Your task to perform on an android device: Search for sushi restaurants on Maps Image 0: 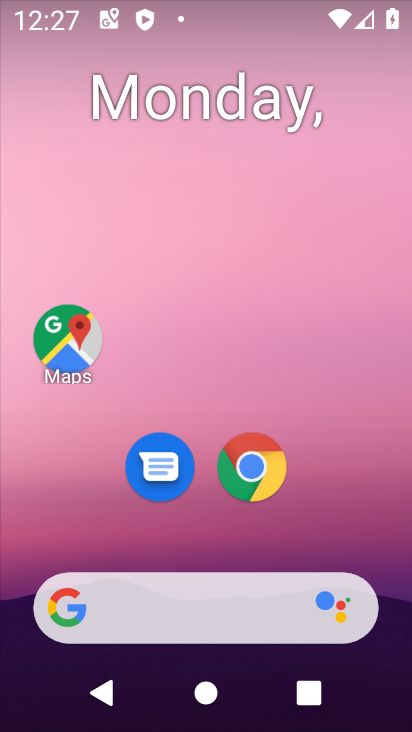
Step 0: click (65, 338)
Your task to perform on an android device: Search for sushi restaurants on Maps Image 1: 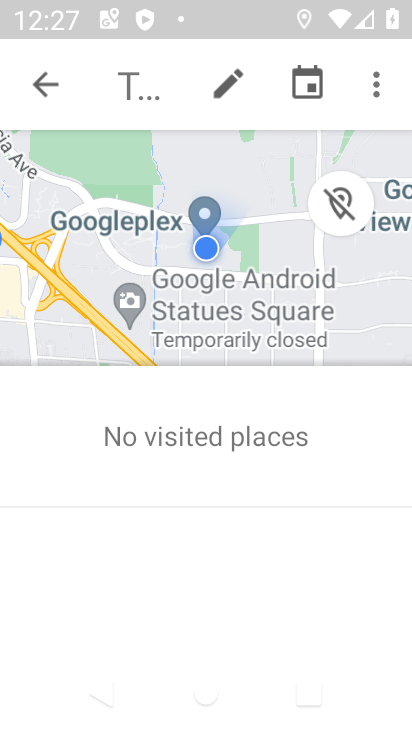
Step 1: press back button
Your task to perform on an android device: Search for sushi restaurants on Maps Image 2: 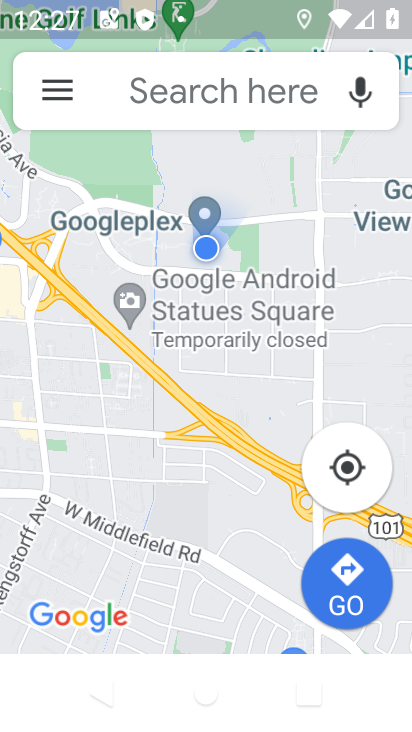
Step 2: click (160, 85)
Your task to perform on an android device: Search for sushi restaurants on Maps Image 3: 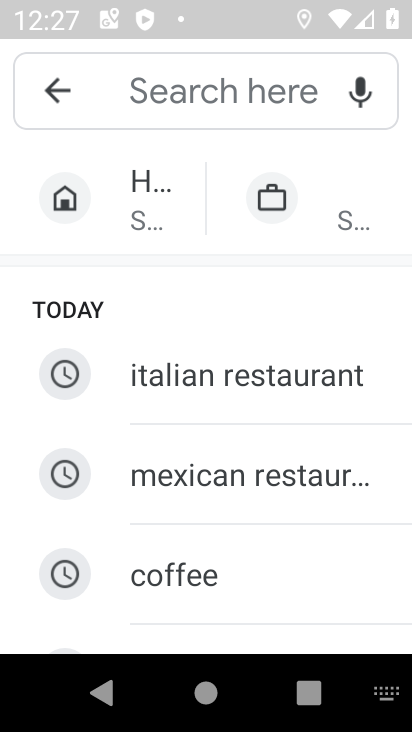
Step 3: type "sushi restaurants"
Your task to perform on an android device: Search for sushi restaurants on Maps Image 4: 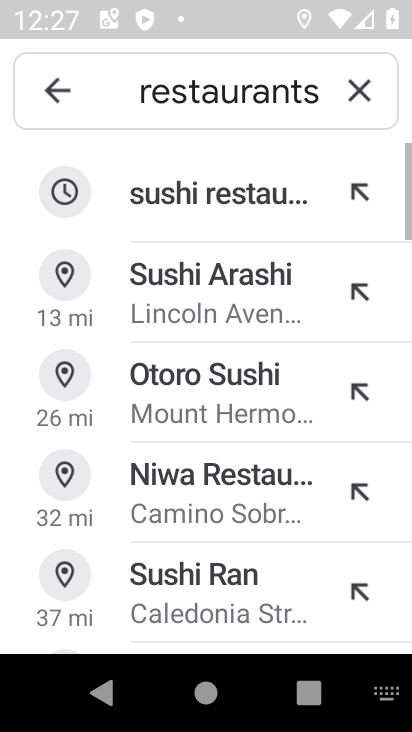
Step 4: click (196, 185)
Your task to perform on an android device: Search for sushi restaurants on Maps Image 5: 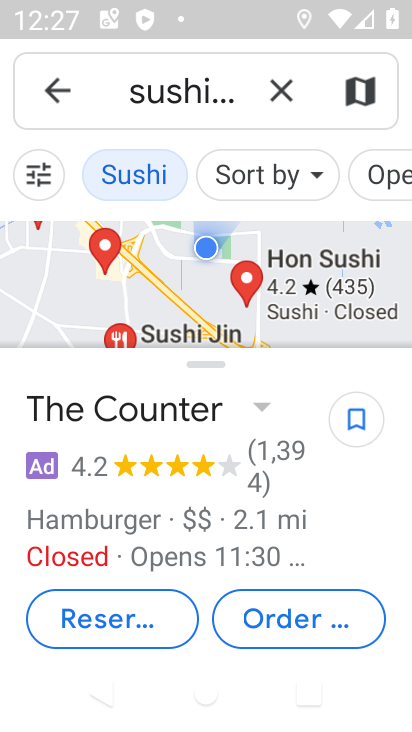
Step 5: task complete